Your task to perform on an android device: Open wifi settings Image 0: 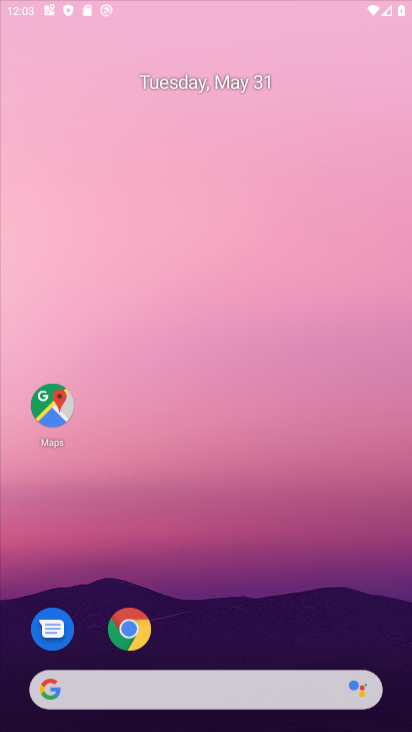
Step 0: press home button
Your task to perform on an android device: Open wifi settings Image 1: 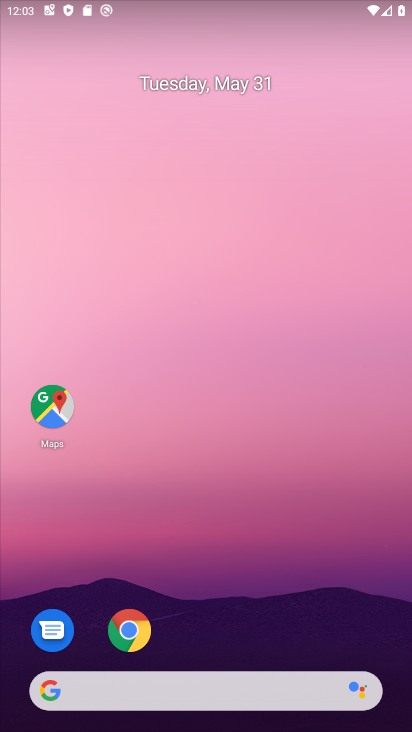
Step 1: drag from (171, 667) to (308, 141)
Your task to perform on an android device: Open wifi settings Image 2: 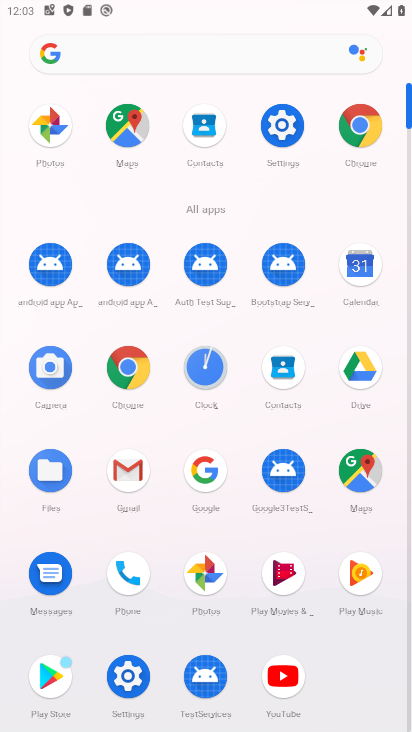
Step 2: click (281, 124)
Your task to perform on an android device: Open wifi settings Image 3: 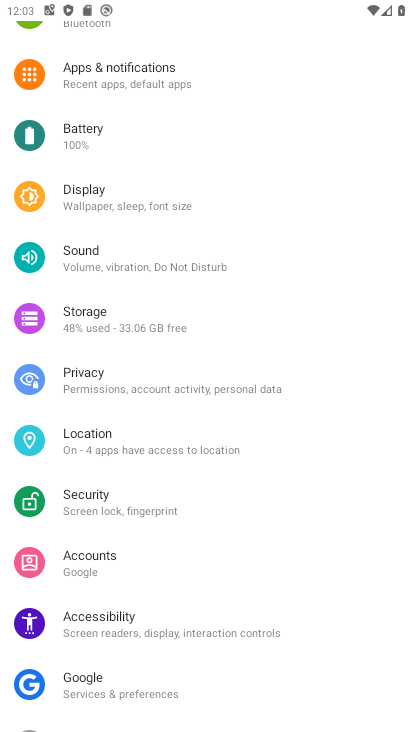
Step 3: drag from (275, 135) to (212, 638)
Your task to perform on an android device: Open wifi settings Image 4: 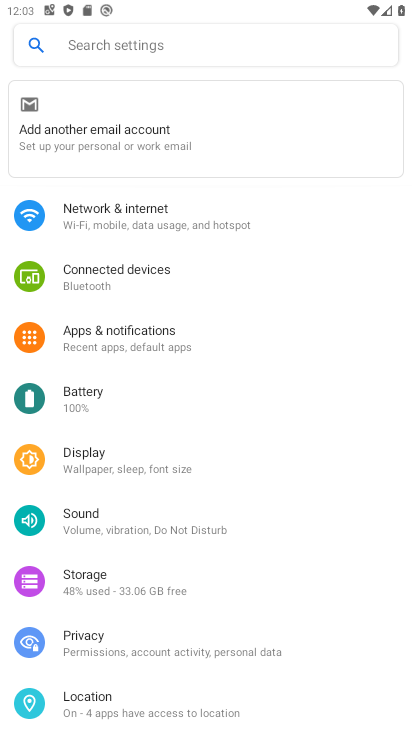
Step 4: click (130, 223)
Your task to perform on an android device: Open wifi settings Image 5: 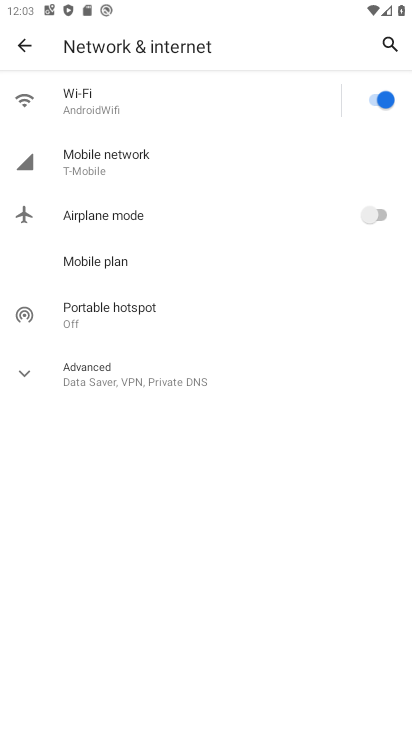
Step 5: click (84, 97)
Your task to perform on an android device: Open wifi settings Image 6: 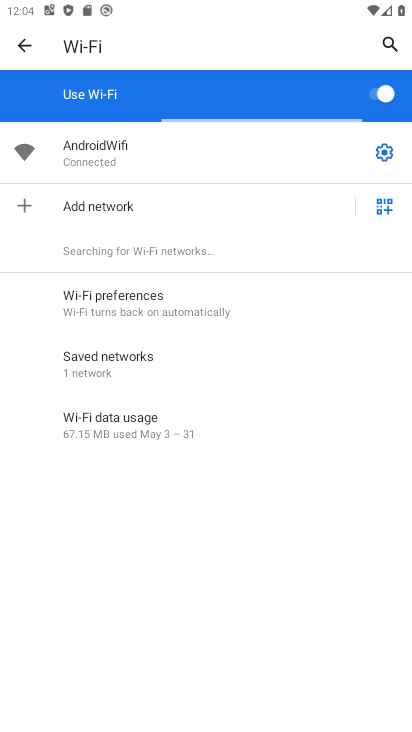
Step 6: task complete